Your task to perform on an android device: Go to Reddit.com Image 0: 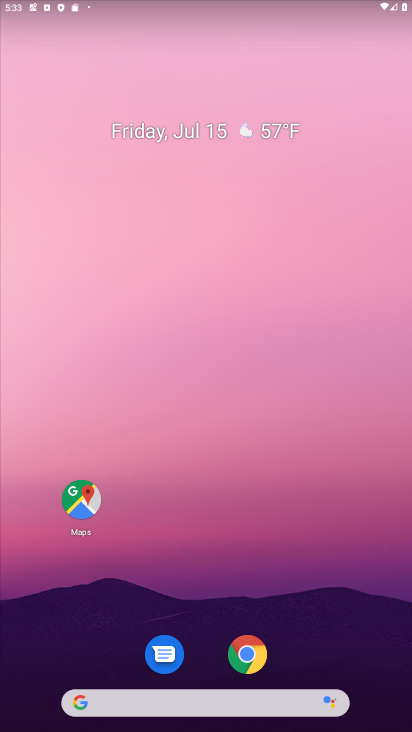
Step 0: click (258, 645)
Your task to perform on an android device: Go to Reddit.com Image 1: 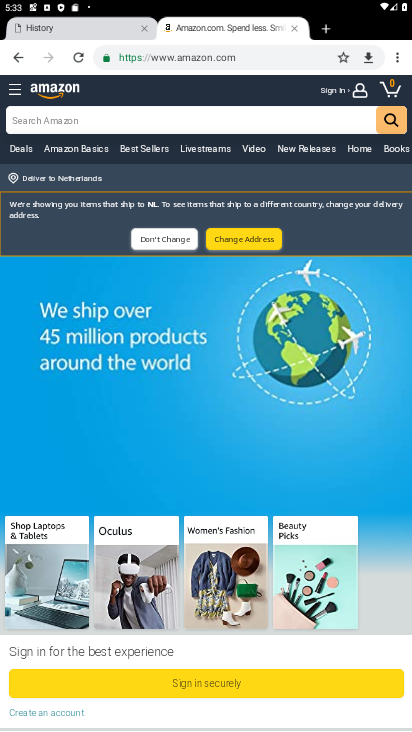
Step 1: click (323, 26)
Your task to perform on an android device: Go to Reddit.com Image 2: 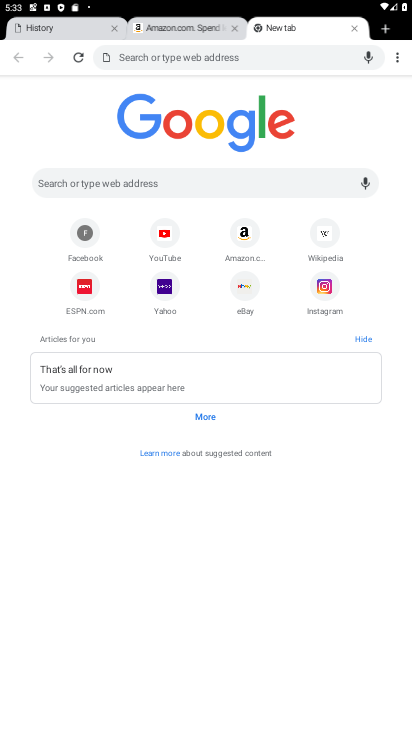
Step 2: type "reddit"
Your task to perform on an android device: Go to Reddit.com Image 3: 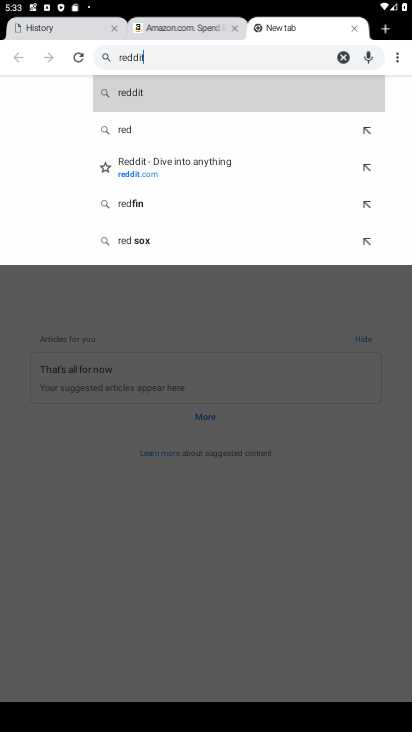
Step 3: type ""
Your task to perform on an android device: Go to Reddit.com Image 4: 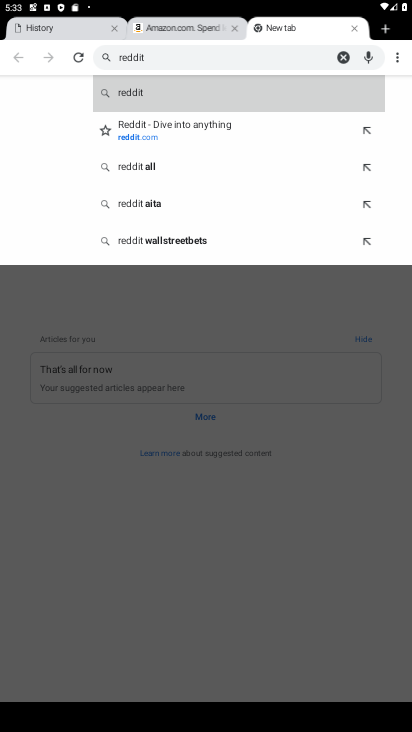
Step 4: click (174, 121)
Your task to perform on an android device: Go to Reddit.com Image 5: 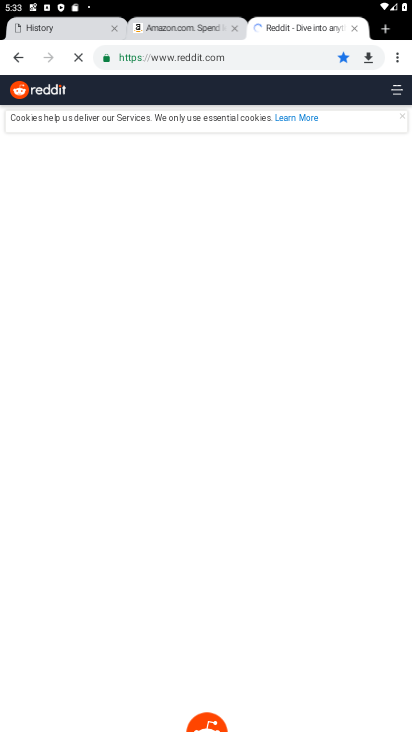
Step 5: task complete